Your task to perform on an android device: Go to display settings Image 0: 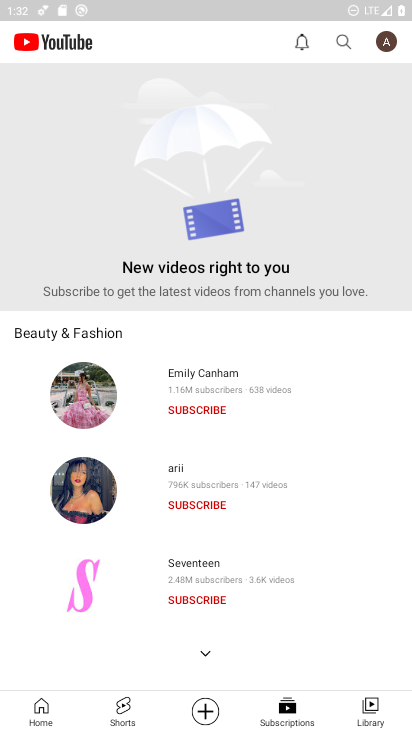
Step 0: press home button
Your task to perform on an android device: Go to display settings Image 1: 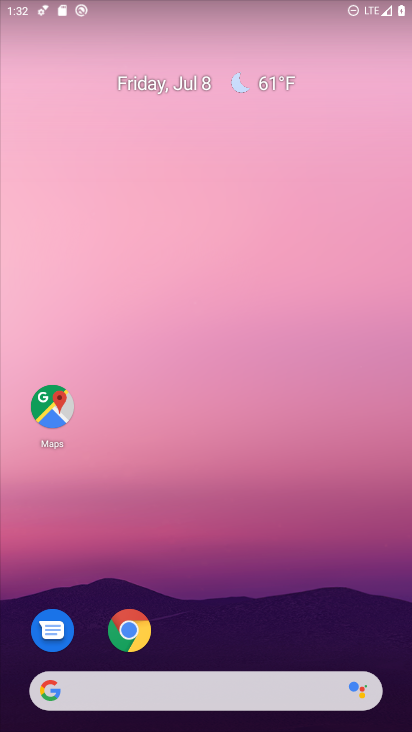
Step 1: drag from (372, 646) to (68, 26)
Your task to perform on an android device: Go to display settings Image 2: 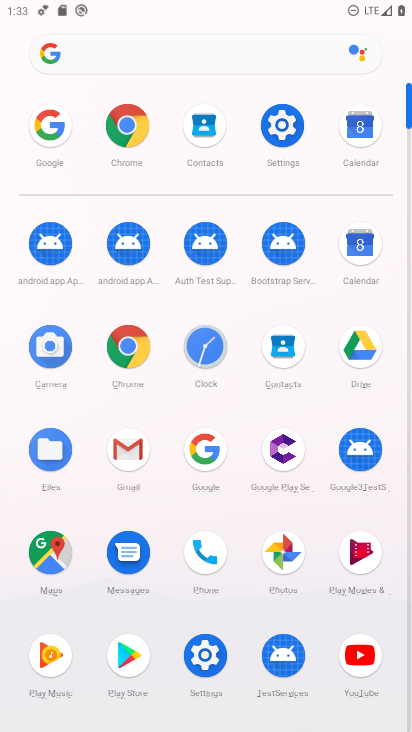
Step 2: click (203, 653)
Your task to perform on an android device: Go to display settings Image 3: 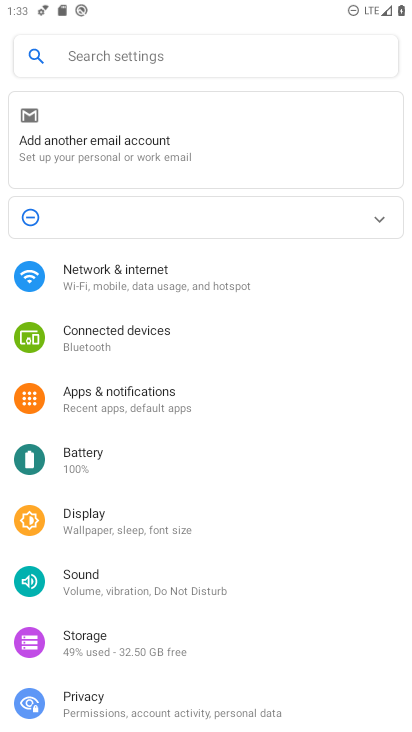
Step 3: click (125, 525)
Your task to perform on an android device: Go to display settings Image 4: 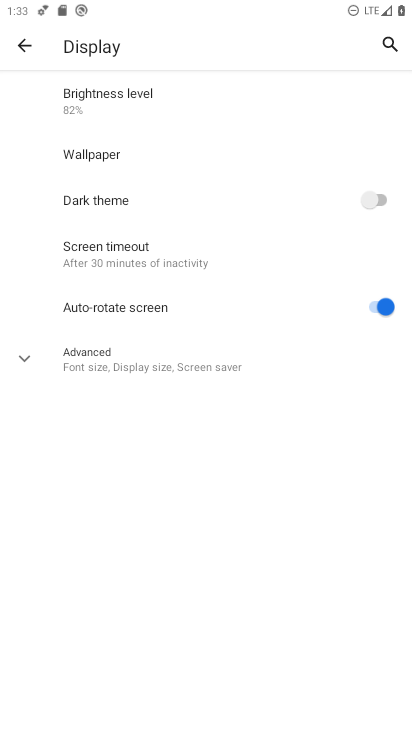
Step 4: task complete